Your task to perform on an android device: set default search engine in the chrome app Image 0: 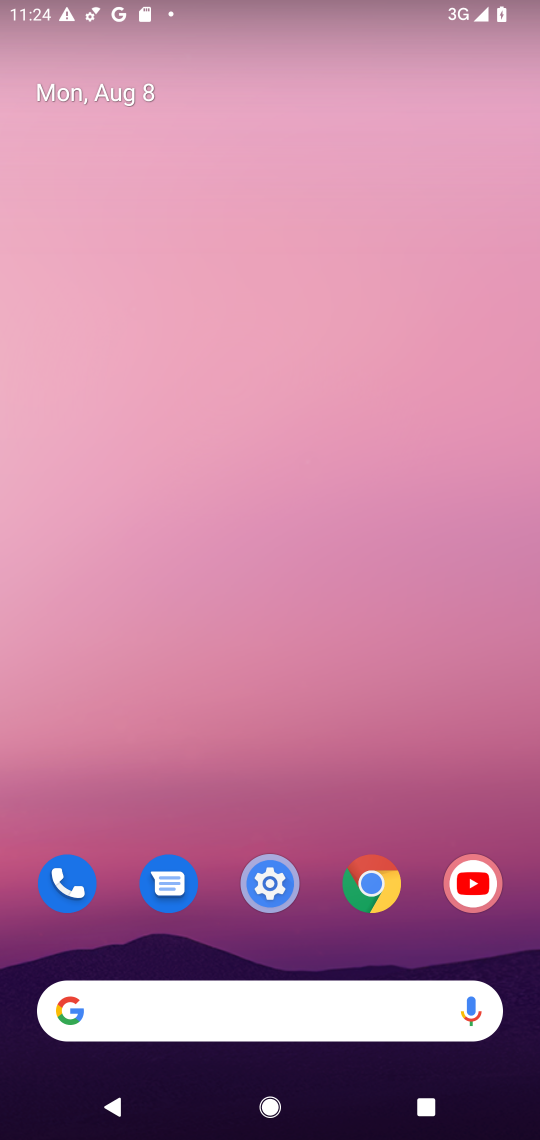
Step 0: press home button
Your task to perform on an android device: set default search engine in the chrome app Image 1: 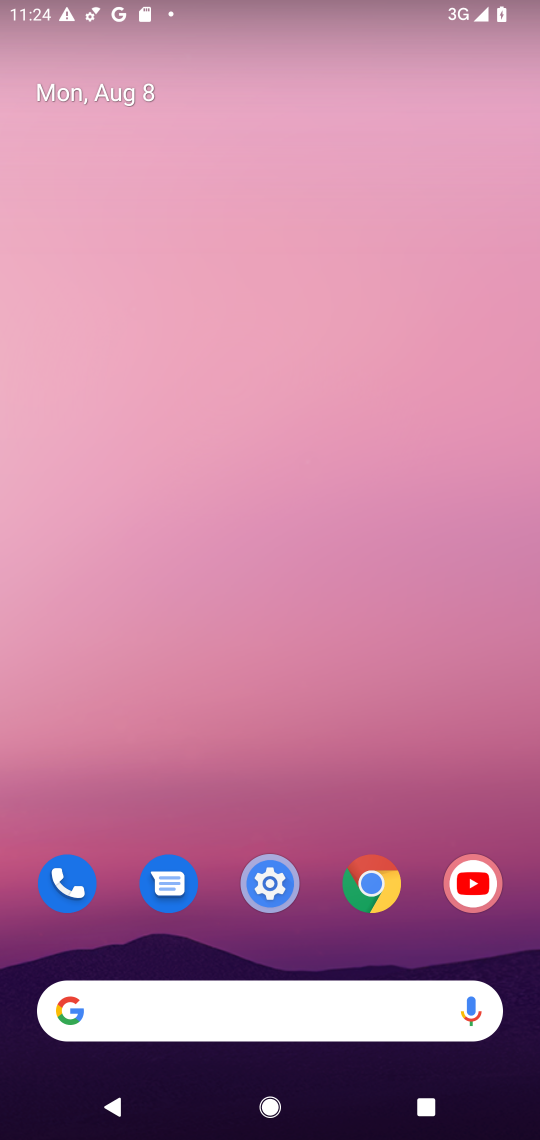
Step 1: click (373, 872)
Your task to perform on an android device: set default search engine in the chrome app Image 2: 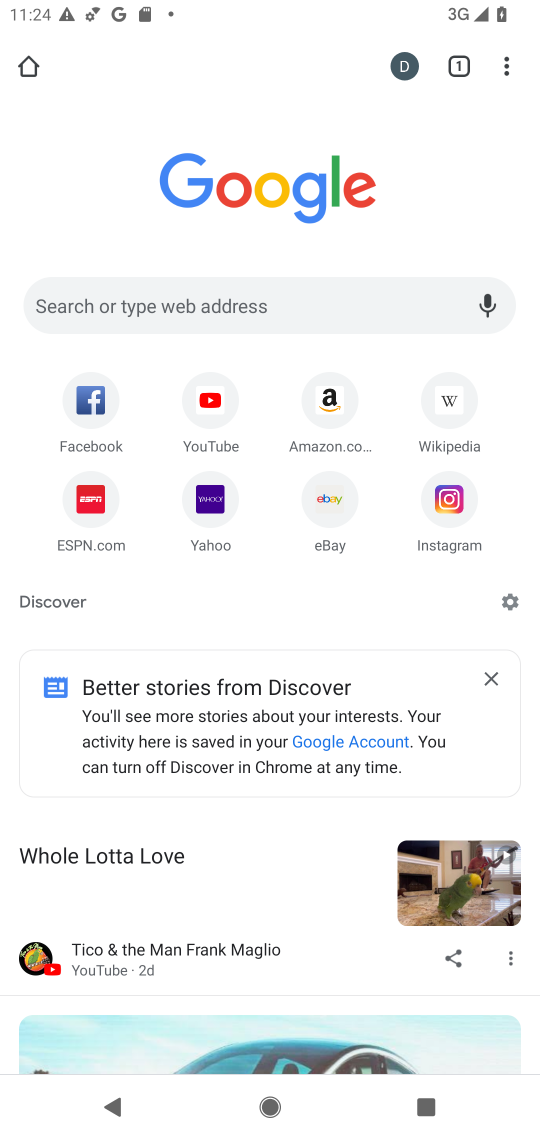
Step 2: click (503, 73)
Your task to perform on an android device: set default search engine in the chrome app Image 3: 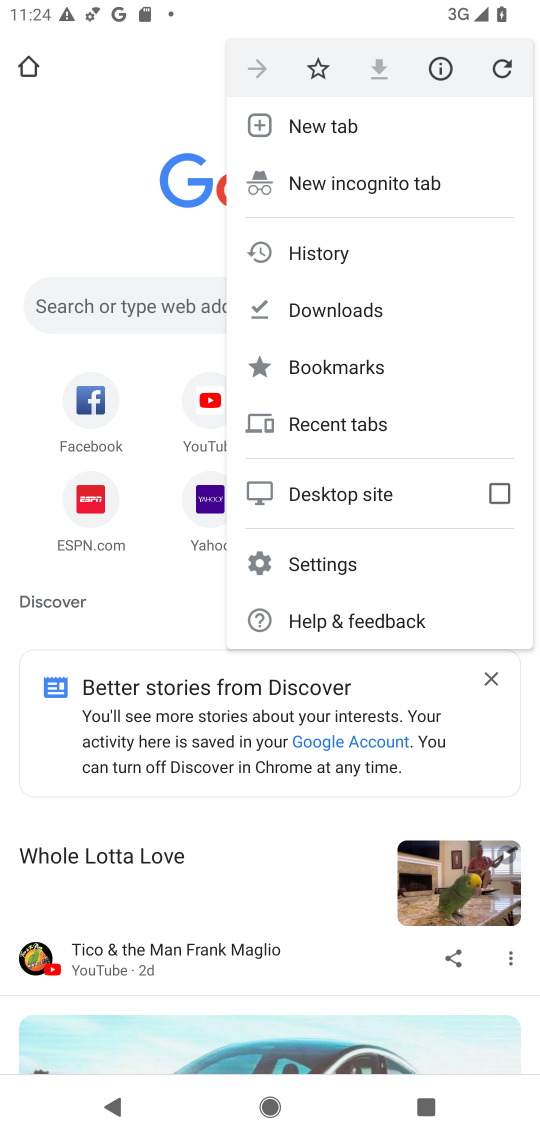
Step 3: click (355, 559)
Your task to perform on an android device: set default search engine in the chrome app Image 4: 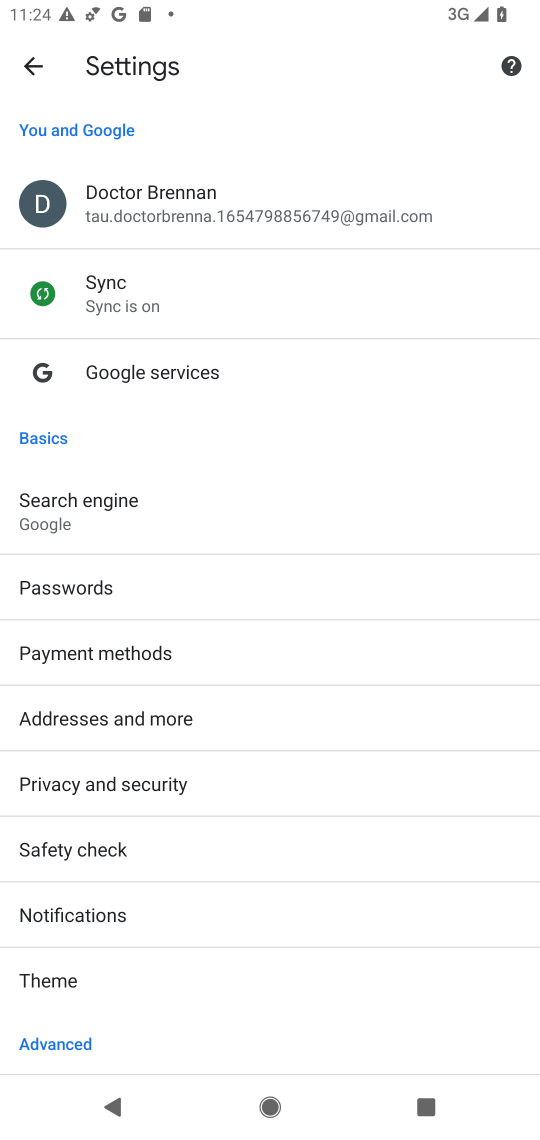
Step 4: click (152, 517)
Your task to perform on an android device: set default search engine in the chrome app Image 5: 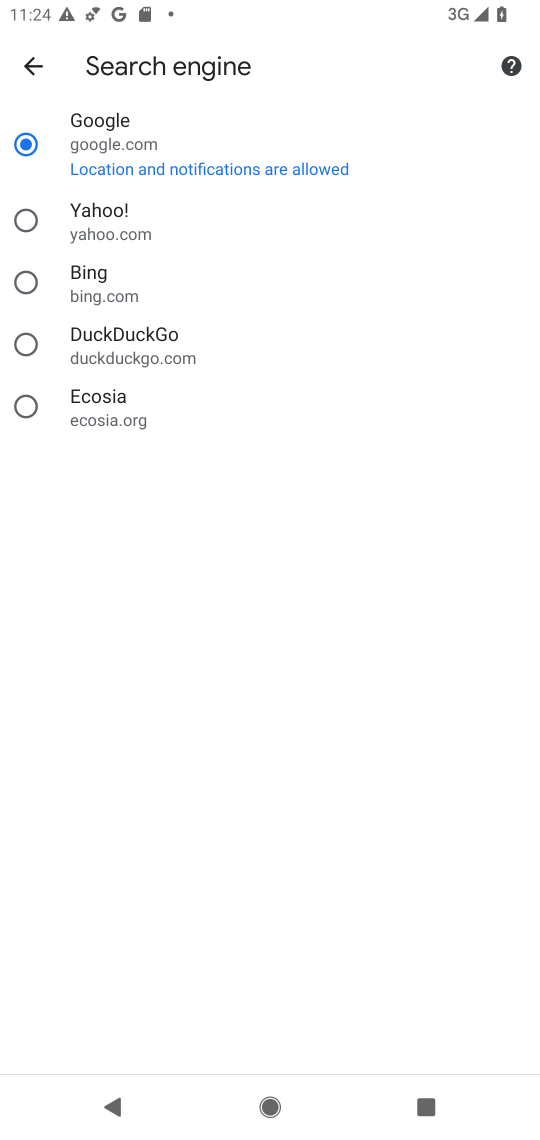
Step 5: click (29, 272)
Your task to perform on an android device: set default search engine in the chrome app Image 6: 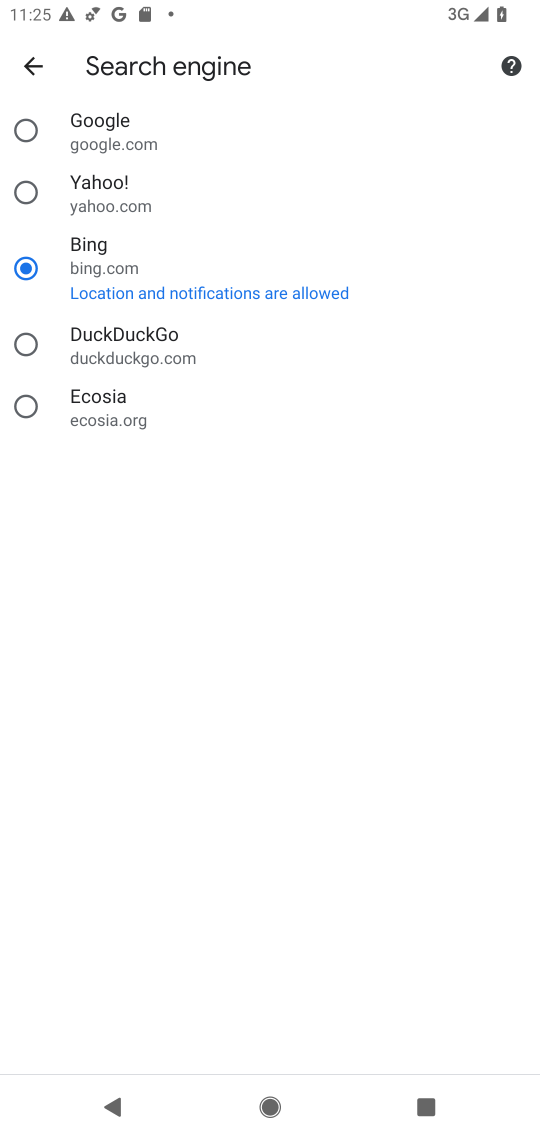
Step 6: task complete